Your task to perform on an android device: make emails show in primary in the gmail app Image 0: 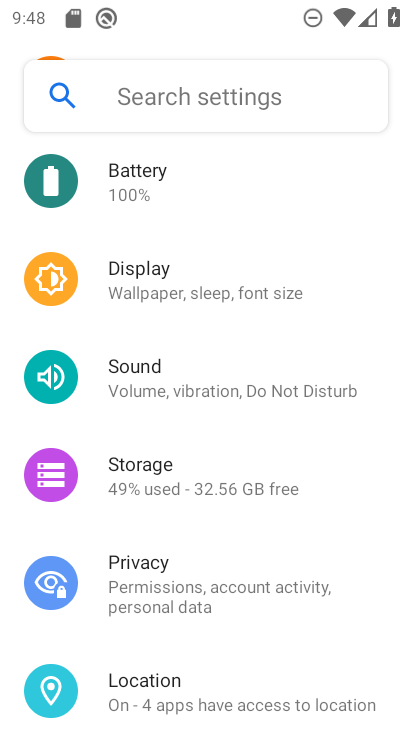
Step 0: press home button
Your task to perform on an android device: make emails show in primary in the gmail app Image 1: 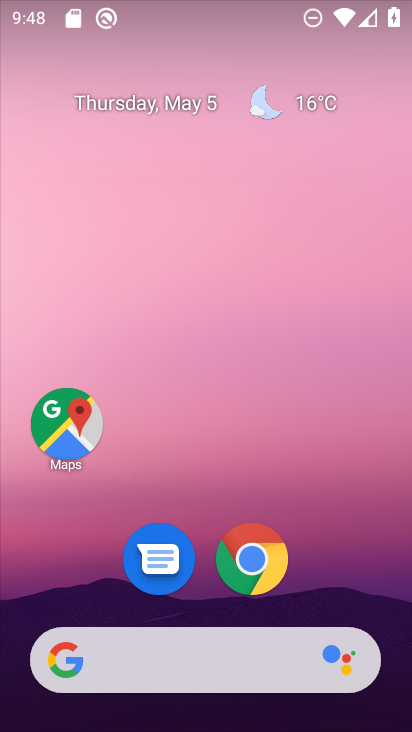
Step 1: drag from (345, 618) to (411, 233)
Your task to perform on an android device: make emails show in primary in the gmail app Image 2: 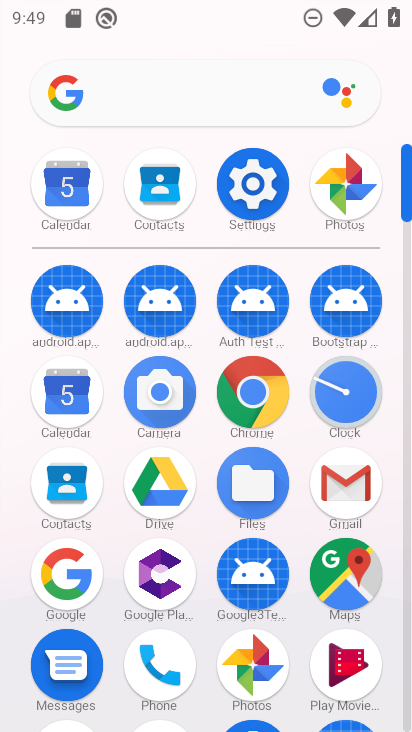
Step 2: click (343, 489)
Your task to perform on an android device: make emails show in primary in the gmail app Image 3: 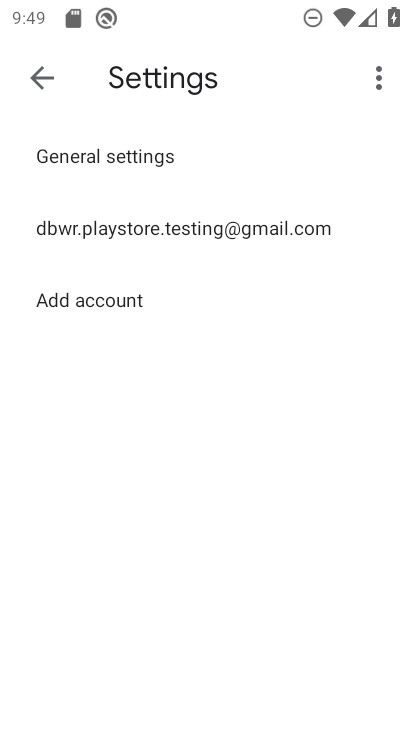
Step 3: click (92, 231)
Your task to perform on an android device: make emails show in primary in the gmail app Image 4: 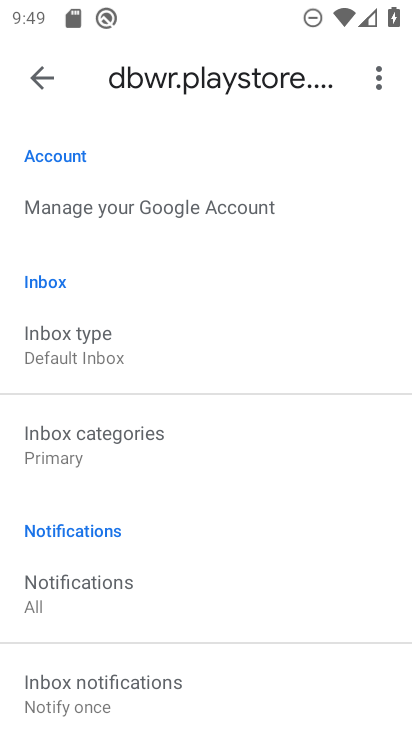
Step 4: task complete